Your task to perform on an android device: Go to display settings Image 0: 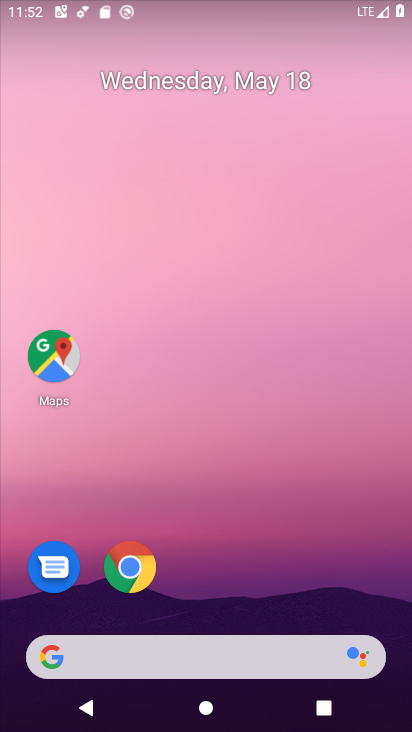
Step 0: drag from (292, 468) to (289, 82)
Your task to perform on an android device: Go to display settings Image 1: 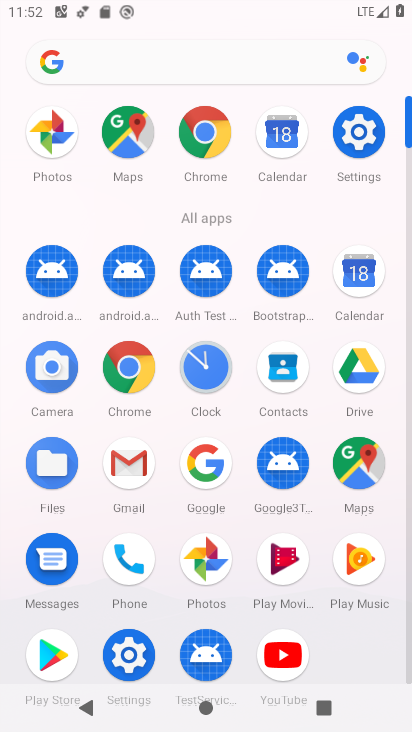
Step 1: click (353, 148)
Your task to perform on an android device: Go to display settings Image 2: 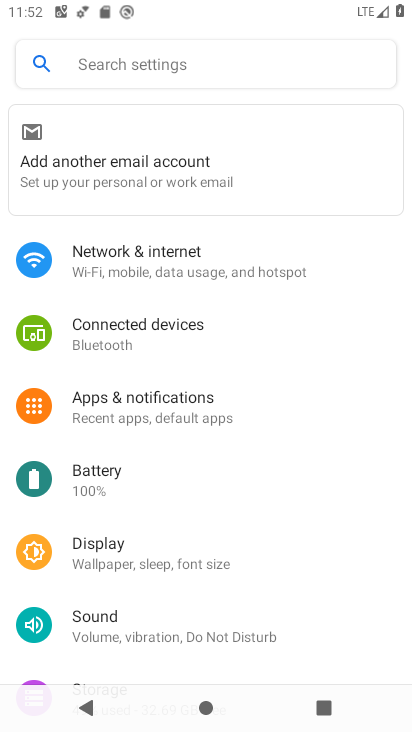
Step 2: click (135, 559)
Your task to perform on an android device: Go to display settings Image 3: 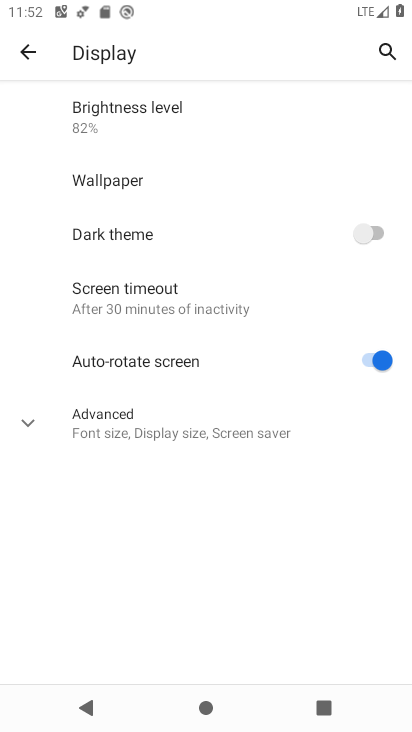
Step 3: task complete